Your task to perform on an android device: find which apps use the phone's location Image 0: 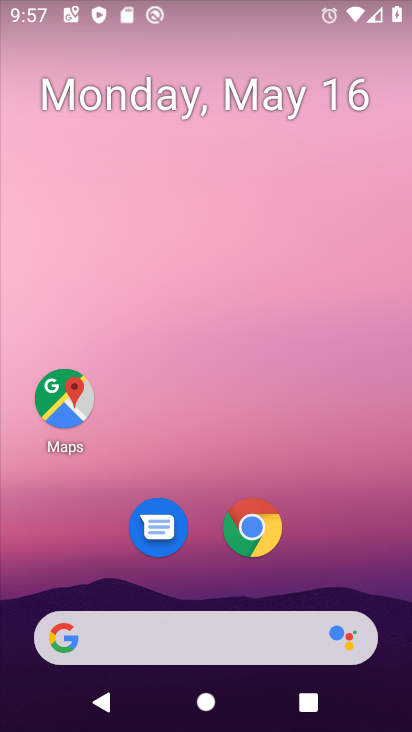
Step 0: press home button
Your task to perform on an android device: find which apps use the phone's location Image 1: 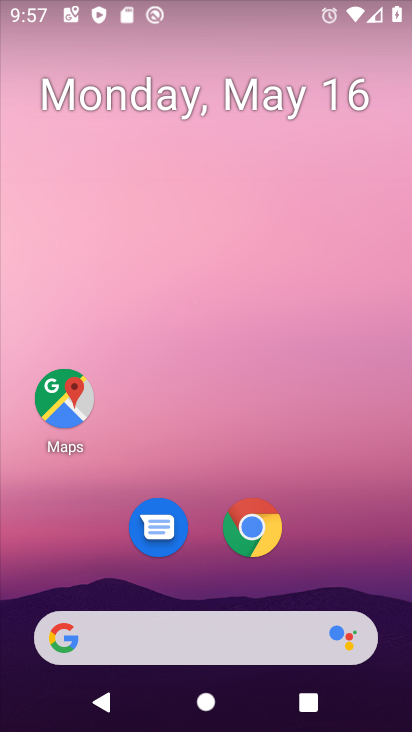
Step 1: drag from (318, 550) to (358, 0)
Your task to perform on an android device: find which apps use the phone's location Image 2: 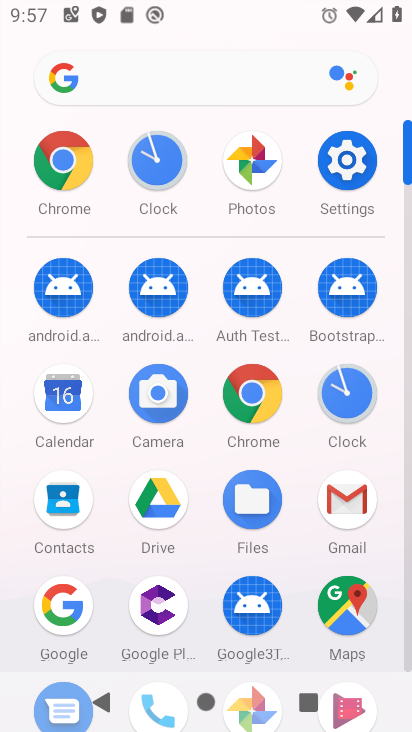
Step 2: click (348, 162)
Your task to perform on an android device: find which apps use the phone's location Image 3: 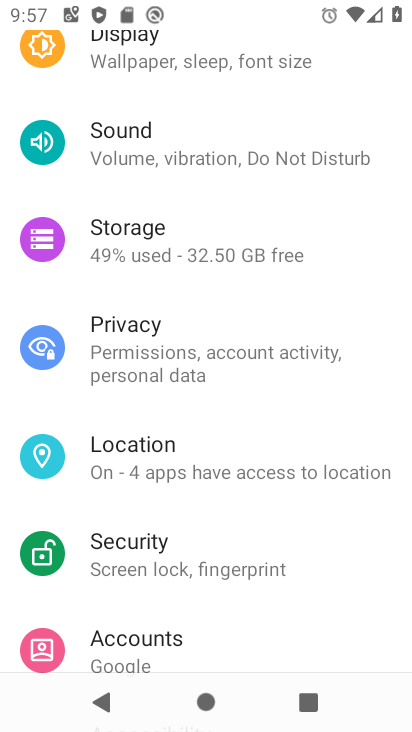
Step 3: click (134, 468)
Your task to perform on an android device: find which apps use the phone's location Image 4: 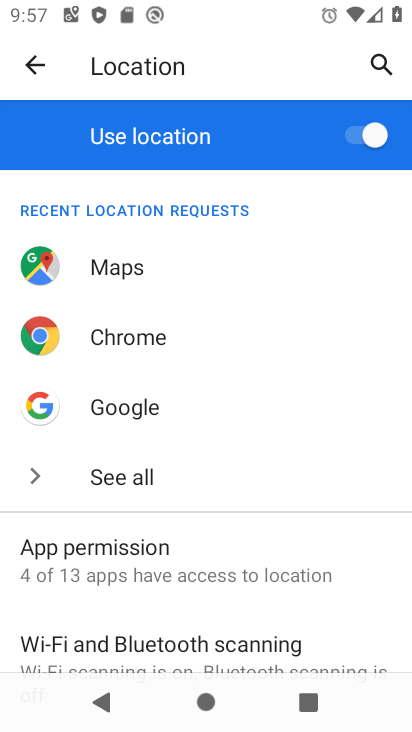
Step 4: click (67, 550)
Your task to perform on an android device: find which apps use the phone's location Image 5: 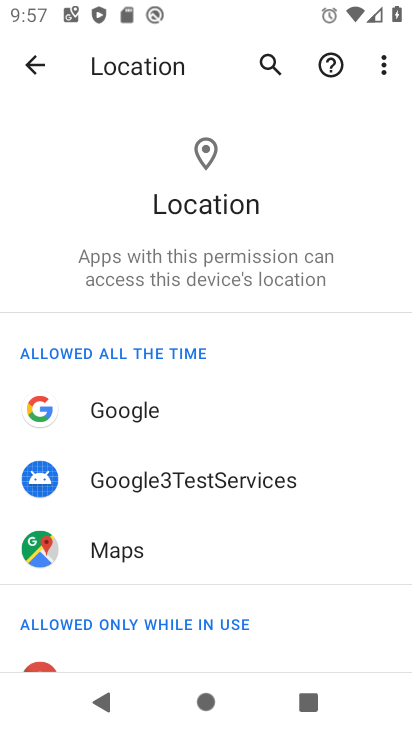
Step 5: task complete